Your task to perform on an android device: Open the phone app and click the voicemail tab. Image 0: 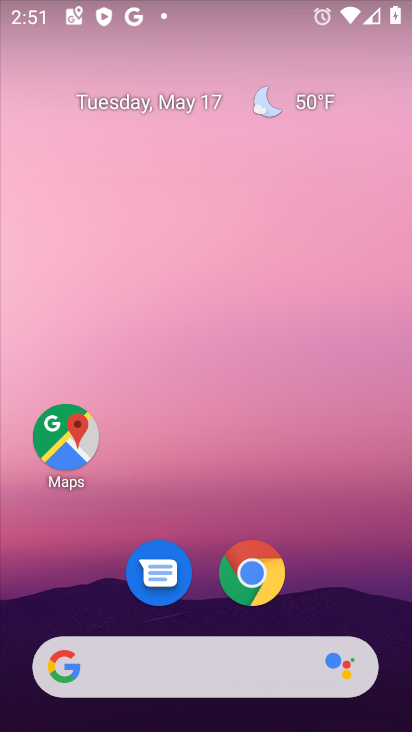
Step 0: drag from (304, 595) to (323, 102)
Your task to perform on an android device: Open the phone app and click the voicemail tab. Image 1: 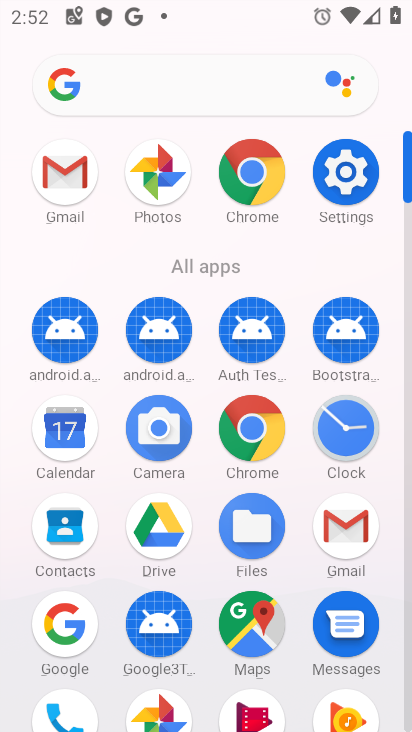
Step 1: drag from (258, 669) to (288, 396)
Your task to perform on an android device: Open the phone app and click the voicemail tab. Image 2: 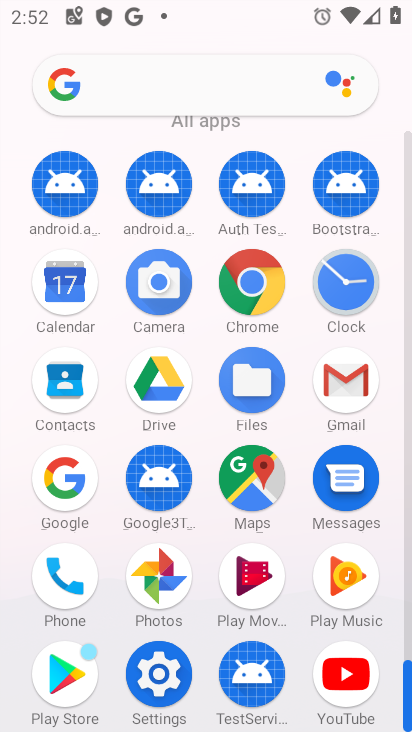
Step 2: click (64, 578)
Your task to perform on an android device: Open the phone app and click the voicemail tab. Image 3: 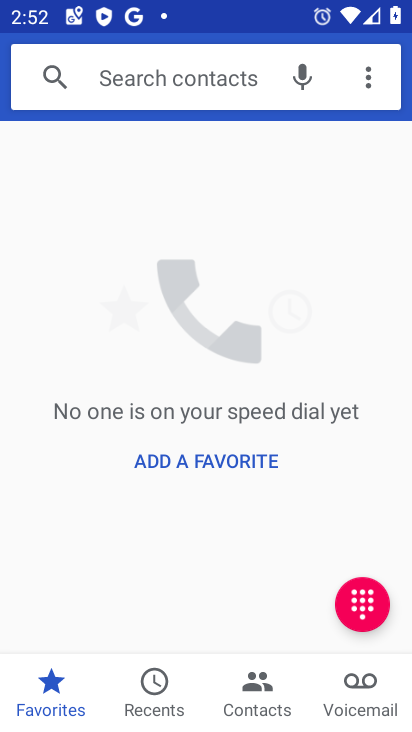
Step 3: click (344, 690)
Your task to perform on an android device: Open the phone app and click the voicemail tab. Image 4: 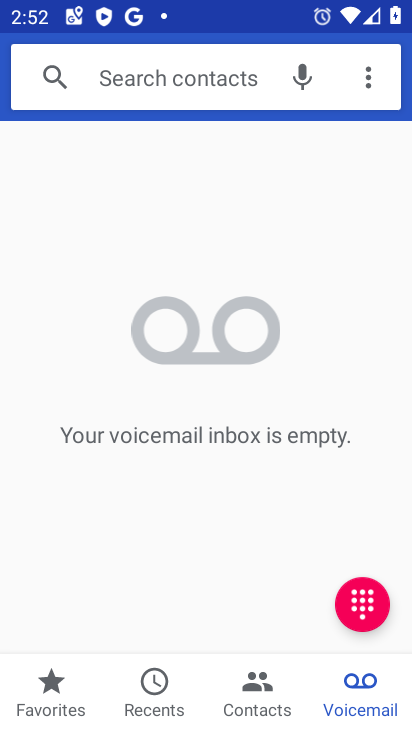
Step 4: task complete